Your task to perform on an android device: toggle sleep mode Image 0: 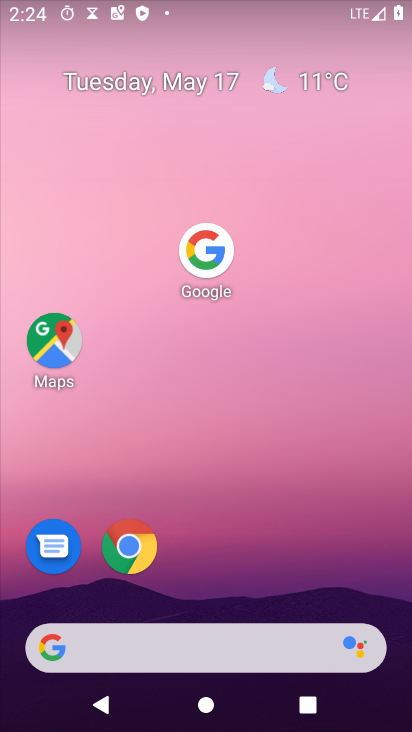
Step 0: press home button
Your task to perform on an android device: toggle sleep mode Image 1: 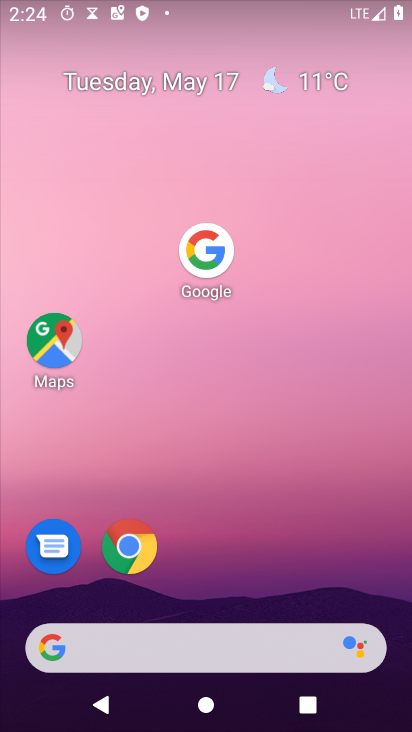
Step 1: drag from (176, 645) to (325, 57)
Your task to perform on an android device: toggle sleep mode Image 2: 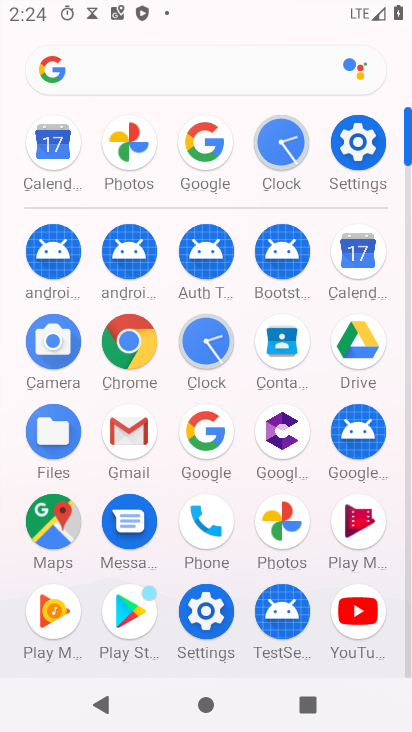
Step 2: click (365, 149)
Your task to perform on an android device: toggle sleep mode Image 3: 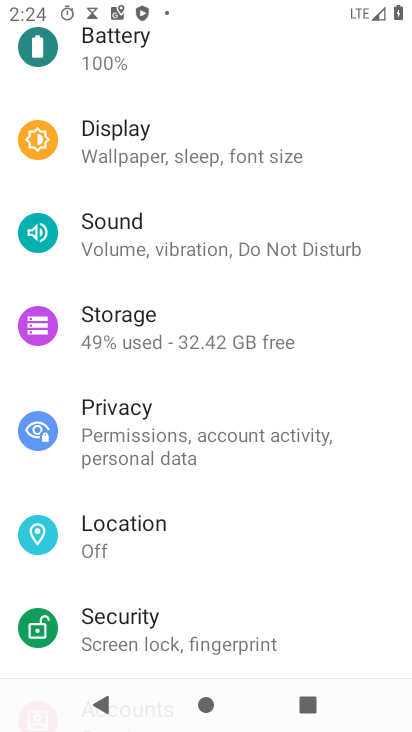
Step 3: click (199, 147)
Your task to perform on an android device: toggle sleep mode Image 4: 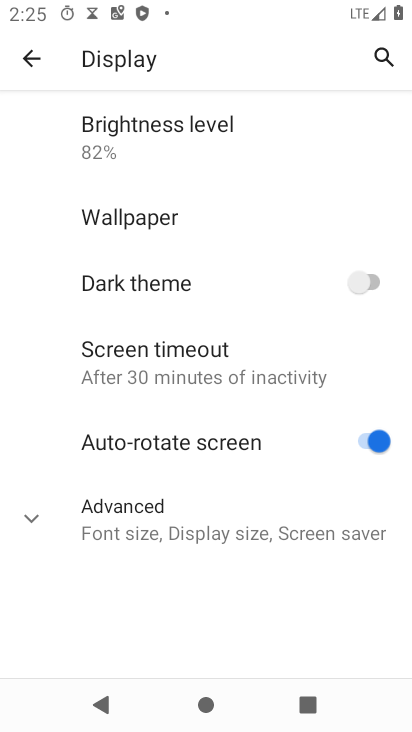
Step 4: task complete